Your task to perform on an android device: Open calendar and show me the first week of next month Image 0: 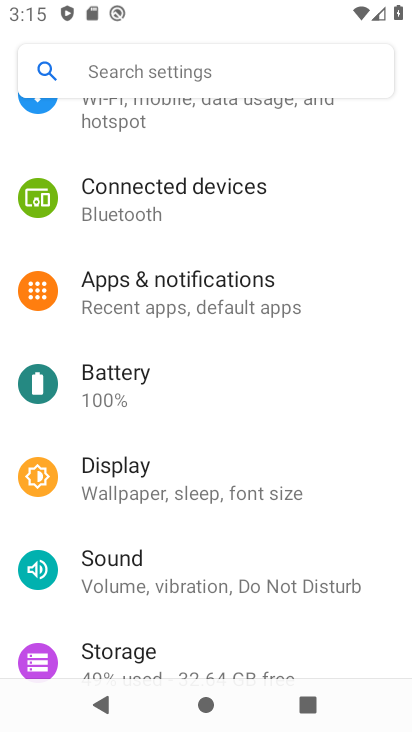
Step 0: press home button
Your task to perform on an android device: Open calendar and show me the first week of next month Image 1: 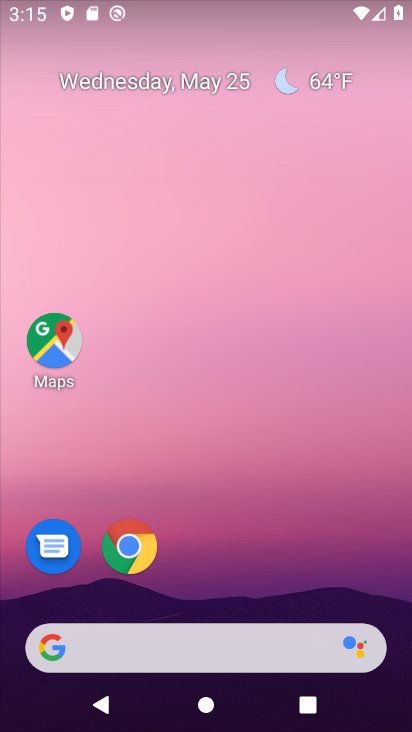
Step 1: drag from (209, 577) to (134, 215)
Your task to perform on an android device: Open calendar and show me the first week of next month Image 2: 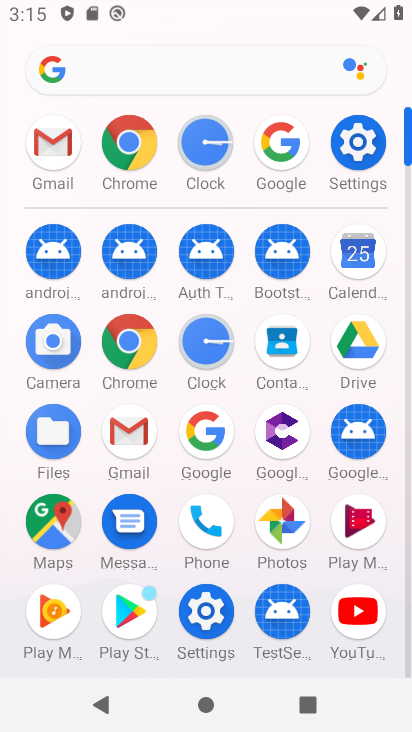
Step 2: click (365, 262)
Your task to perform on an android device: Open calendar and show me the first week of next month Image 3: 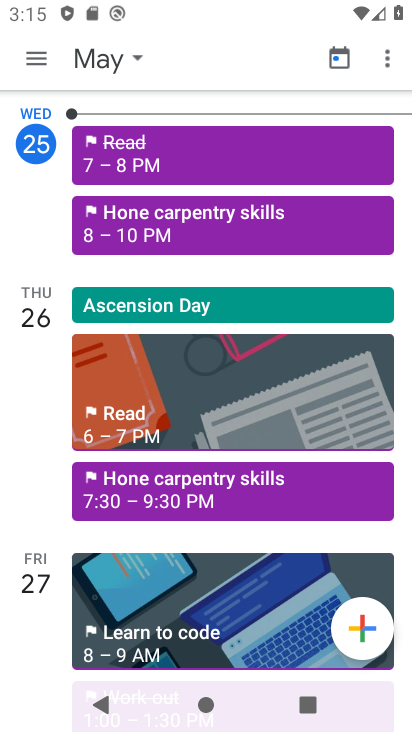
Step 3: click (92, 69)
Your task to perform on an android device: Open calendar and show me the first week of next month Image 4: 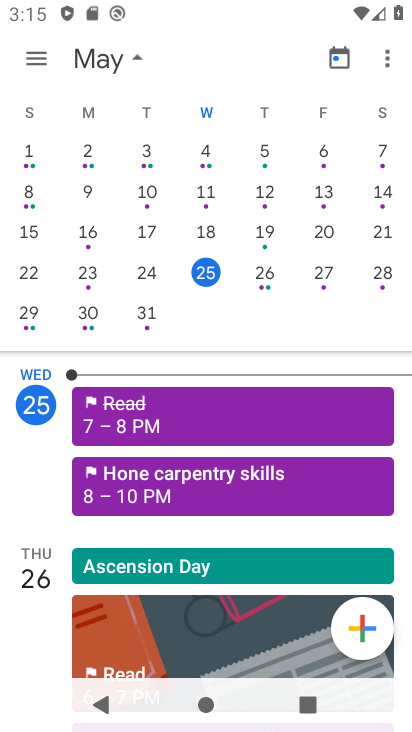
Step 4: drag from (204, 255) to (0, 233)
Your task to perform on an android device: Open calendar and show me the first week of next month Image 5: 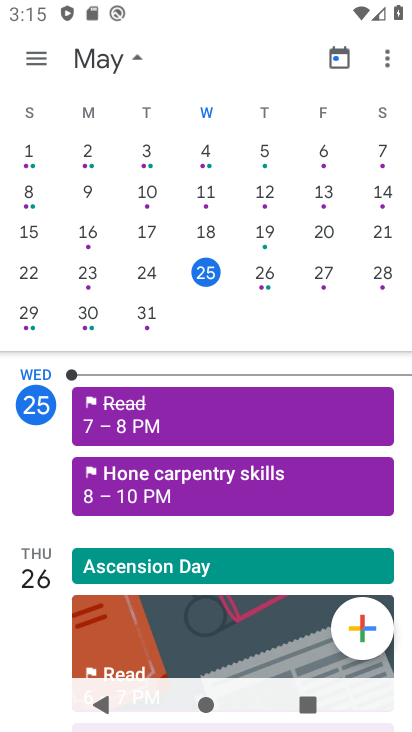
Step 5: drag from (348, 203) to (21, 78)
Your task to perform on an android device: Open calendar and show me the first week of next month Image 6: 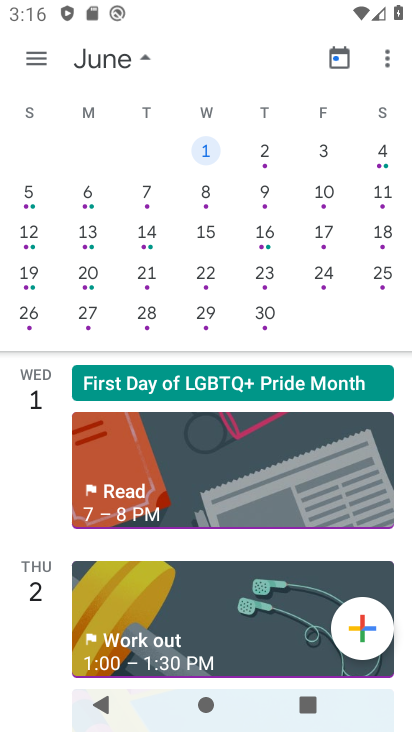
Step 6: click (40, 64)
Your task to perform on an android device: Open calendar and show me the first week of next month Image 7: 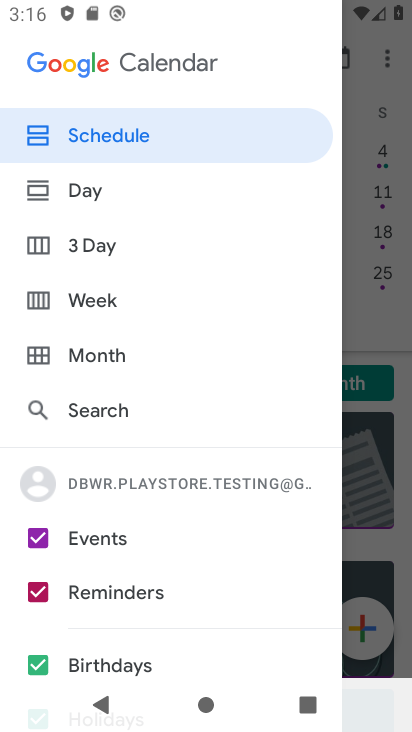
Step 7: click (65, 302)
Your task to perform on an android device: Open calendar and show me the first week of next month Image 8: 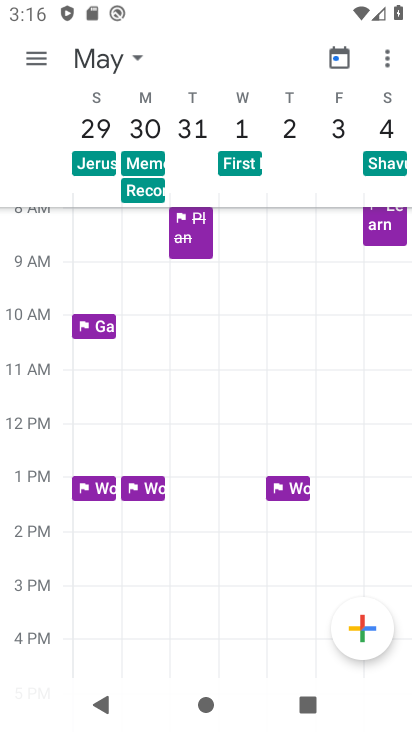
Step 8: task complete